Your task to perform on an android device: turn off notifications settings in the gmail app Image 0: 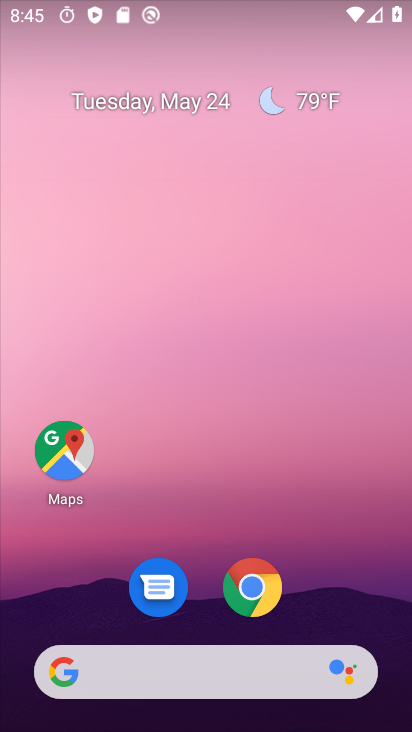
Step 0: drag from (339, 589) to (328, 50)
Your task to perform on an android device: turn off notifications settings in the gmail app Image 1: 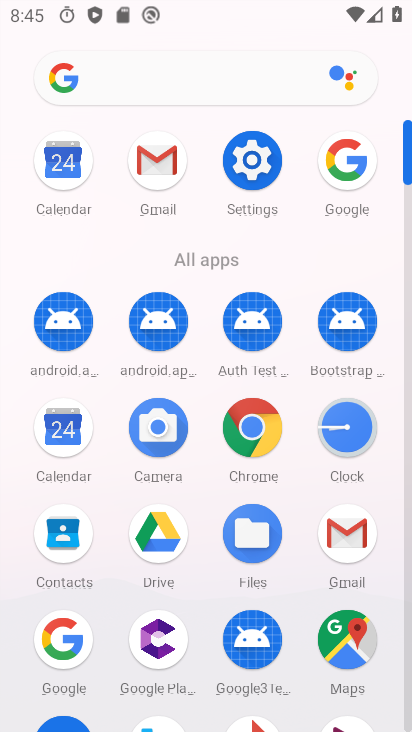
Step 1: click (345, 530)
Your task to perform on an android device: turn off notifications settings in the gmail app Image 2: 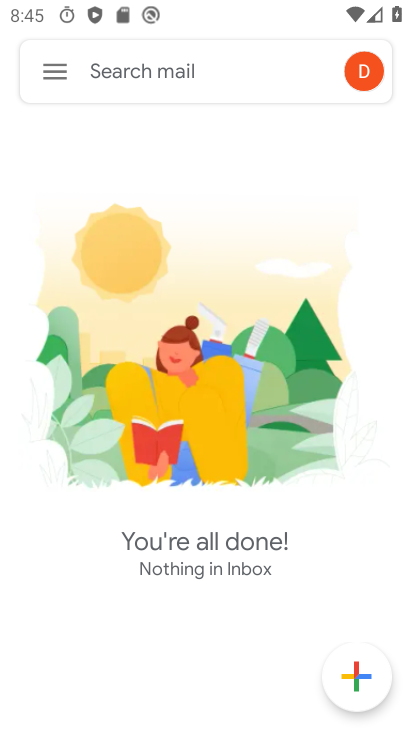
Step 2: click (57, 71)
Your task to perform on an android device: turn off notifications settings in the gmail app Image 3: 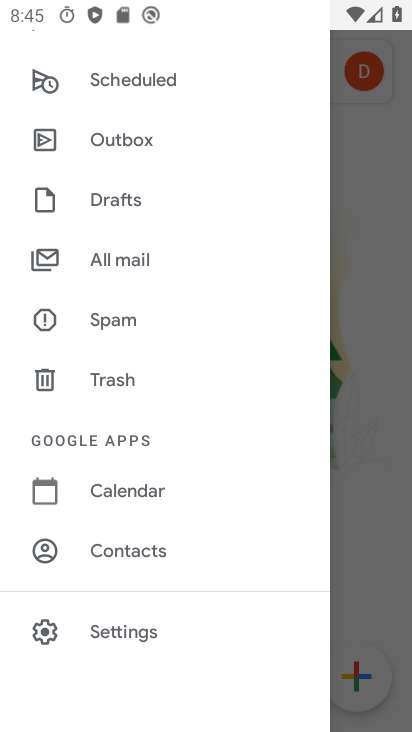
Step 3: click (116, 635)
Your task to perform on an android device: turn off notifications settings in the gmail app Image 4: 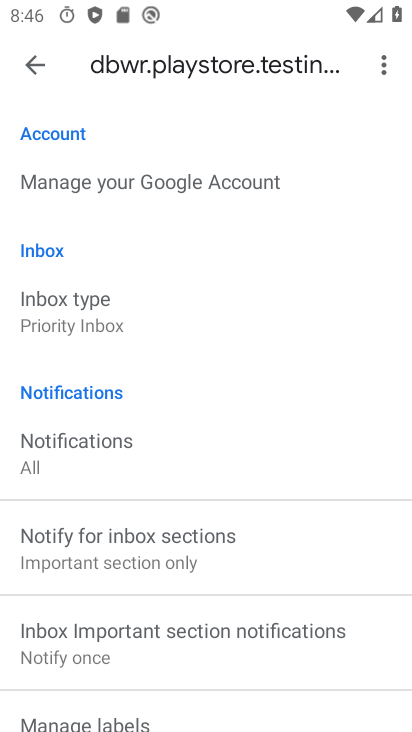
Step 4: drag from (124, 481) to (150, 397)
Your task to perform on an android device: turn off notifications settings in the gmail app Image 5: 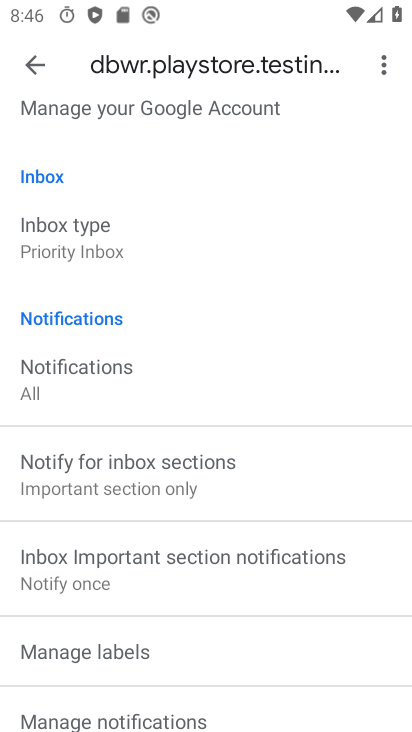
Step 5: drag from (144, 607) to (215, 492)
Your task to perform on an android device: turn off notifications settings in the gmail app Image 6: 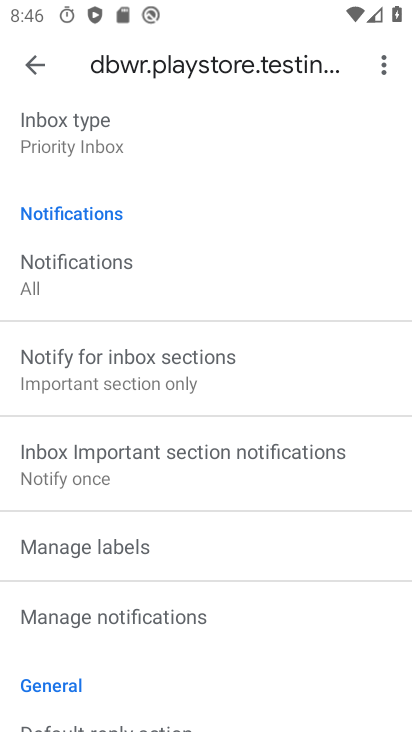
Step 6: click (129, 611)
Your task to perform on an android device: turn off notifications settings in the gmail app Image 7: 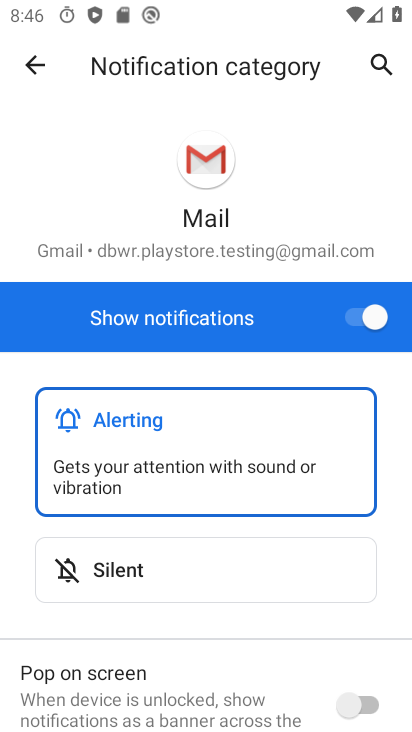
Step 7: click (354, 313)
Your task to perform on an android device: turn off notifications settings in the gmail app Image 8: 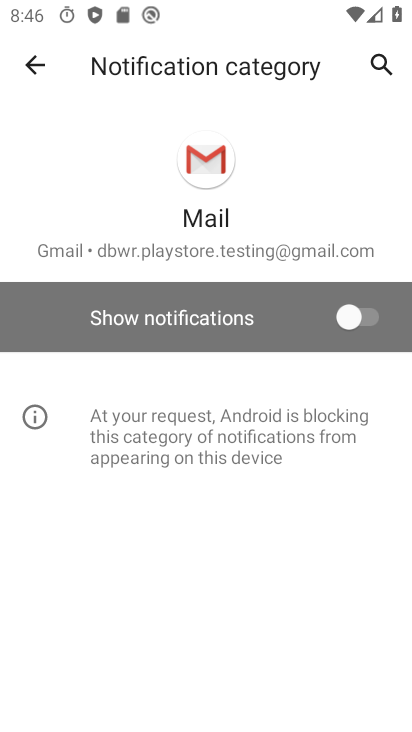
Step 8: task complete